Your task to perform on an android device: Do I have any events today? Image 0: 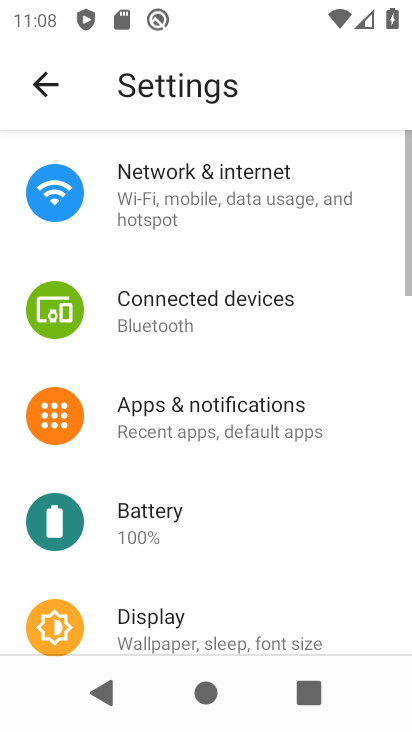
Step 0: press home button
Your task to perform on an android device: Do I have any events today? Image 1: 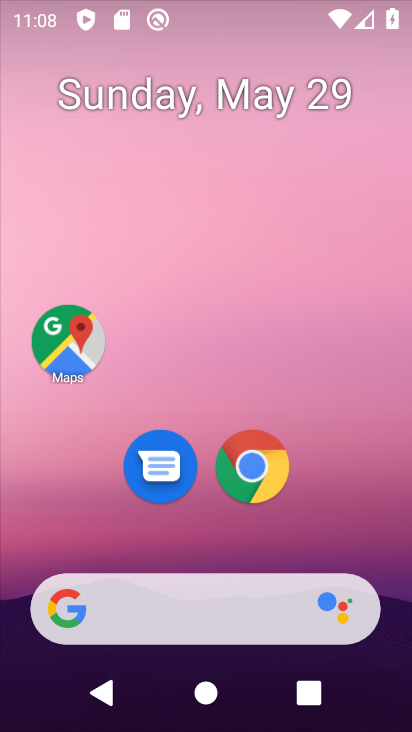
Step 1: drag from (352, 534) to (329, 197)
Your task to perform on an android device: Do I have any events today? Image 2: 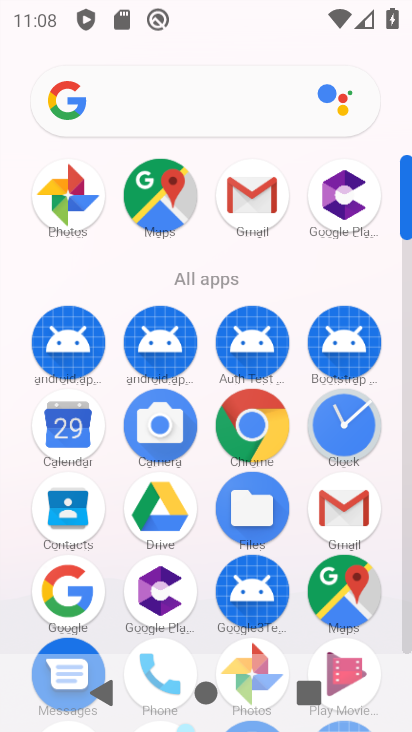
Step 2: drag from (79, 436) to (60, 183)
Your task to perform on an android device: Do I have any events today? Image 3: 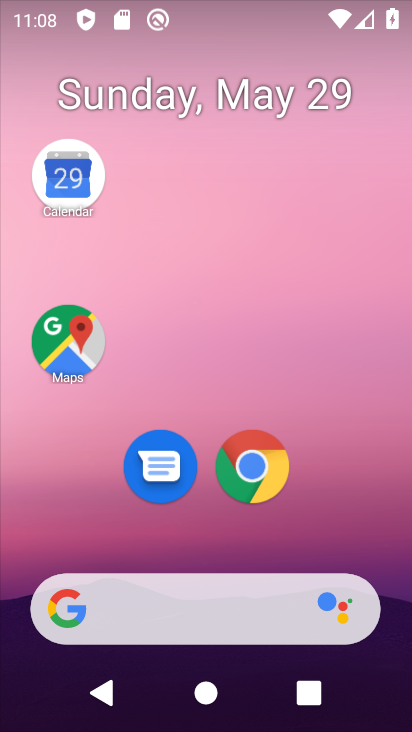
Step 3: click (66, 186)
Your task to perform on an android device: Do I have any events today? Image 4: 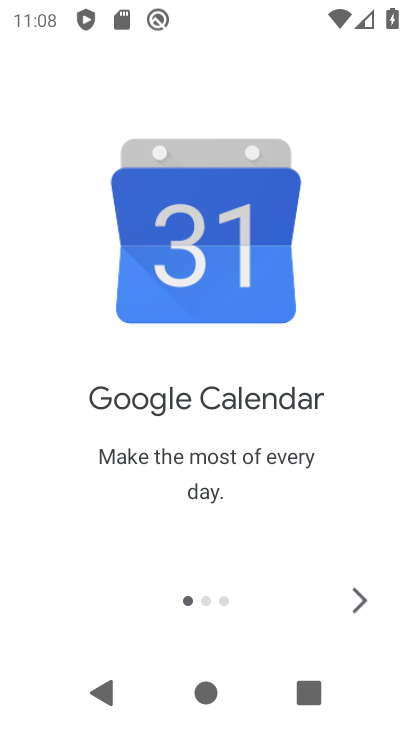
Step 4: click (366, 598)
Your task to perform on an android device: Do I have any events today? Image 5: 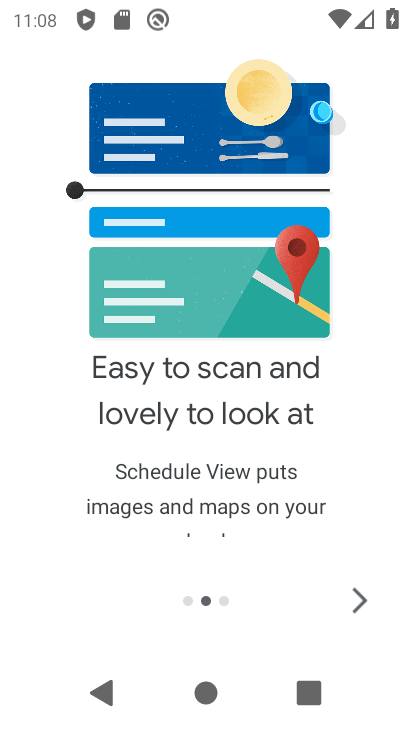
Step 5: click (366, 598)
Your task to perform on an android device: Do I have any events today? Image 6: 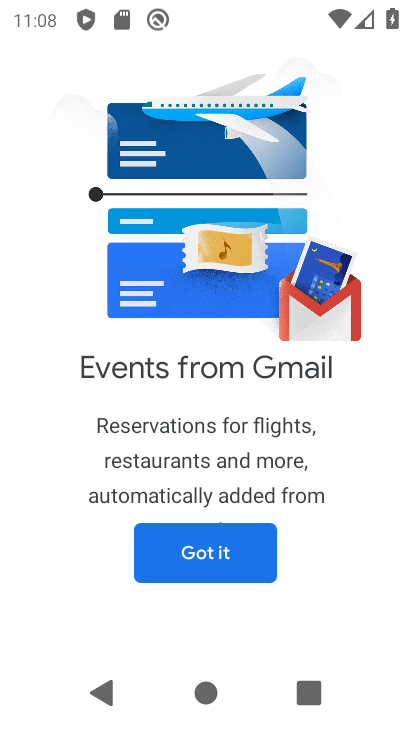
Step 6: click (211, 551)
Your task to perform on an android device: Do I have any events today? Image 7: 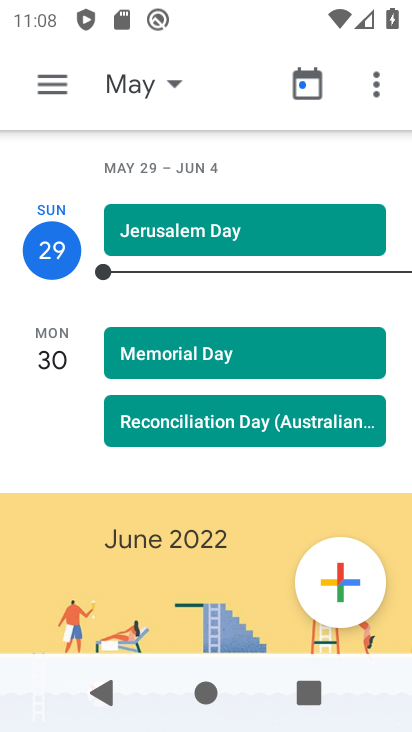
Step 7: click (70, 231)
Your task to perform on an android device: Do I have any events today? Image 8: 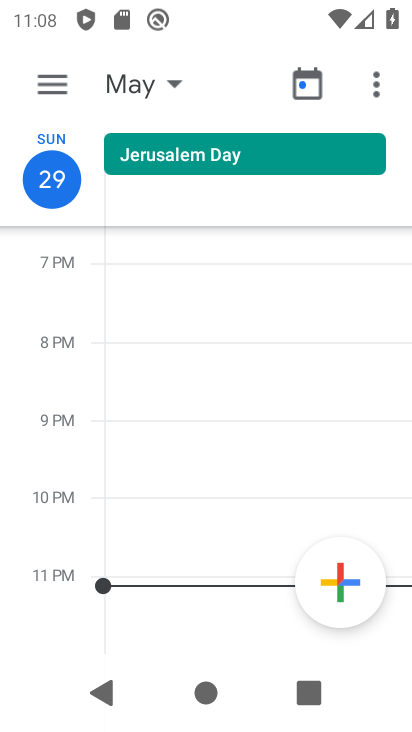
Step 8: task complete